Your task to perform on an android device: turn off notifications in google photos Image 0: 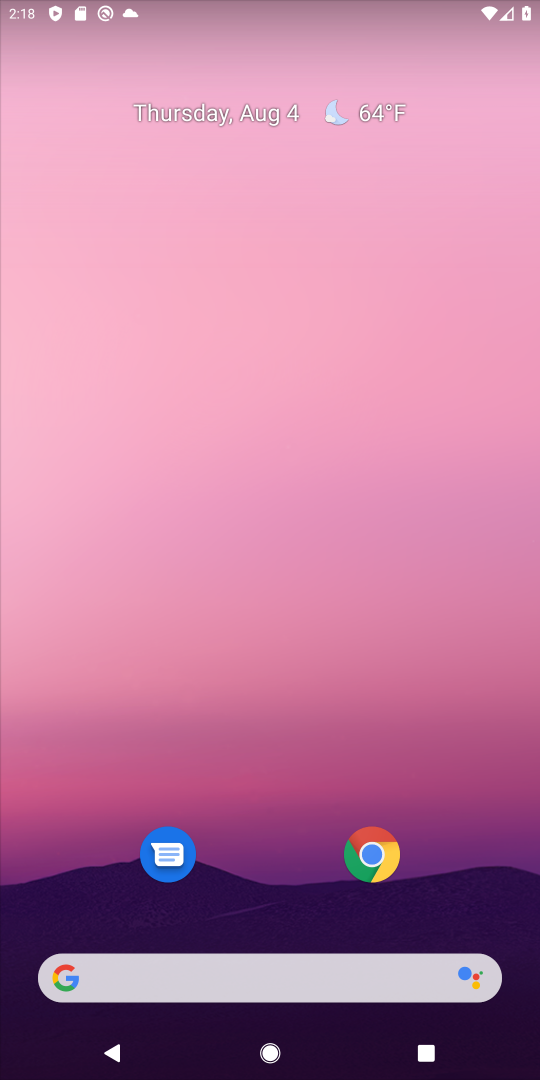
Step 0: drag from (328, 763) to (381, 321)
Your task to perform on an android device: turn off notifications in google photos Image 1: 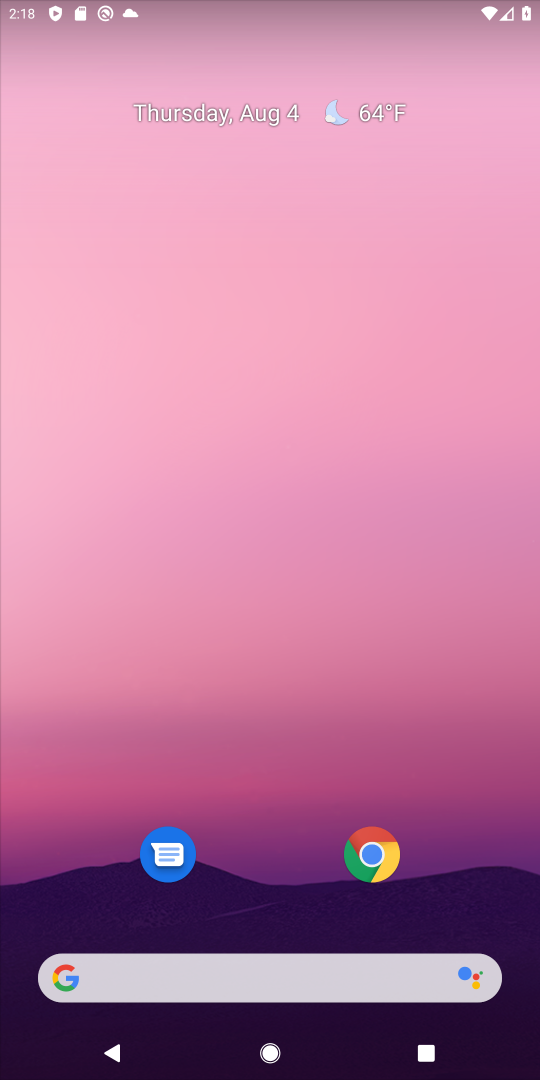
Step 1: drag from (283, 741) to (341, 176)
Your task to perform on an android device: turn off notifications in google photos Image 2: 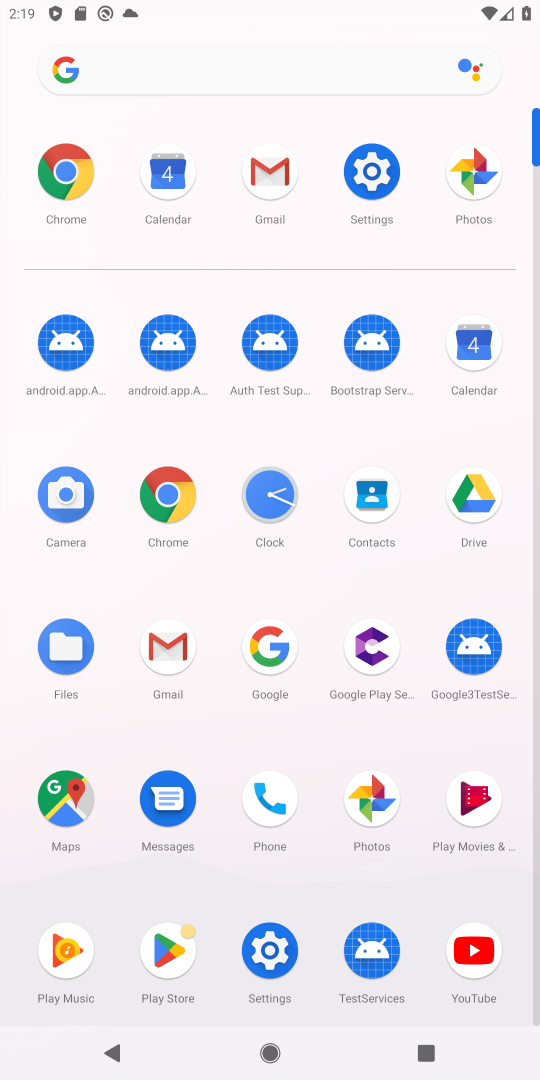
Step 2: click (372, 806)
Your task to perform on an android device: turn off notifications in google photos Image 3: 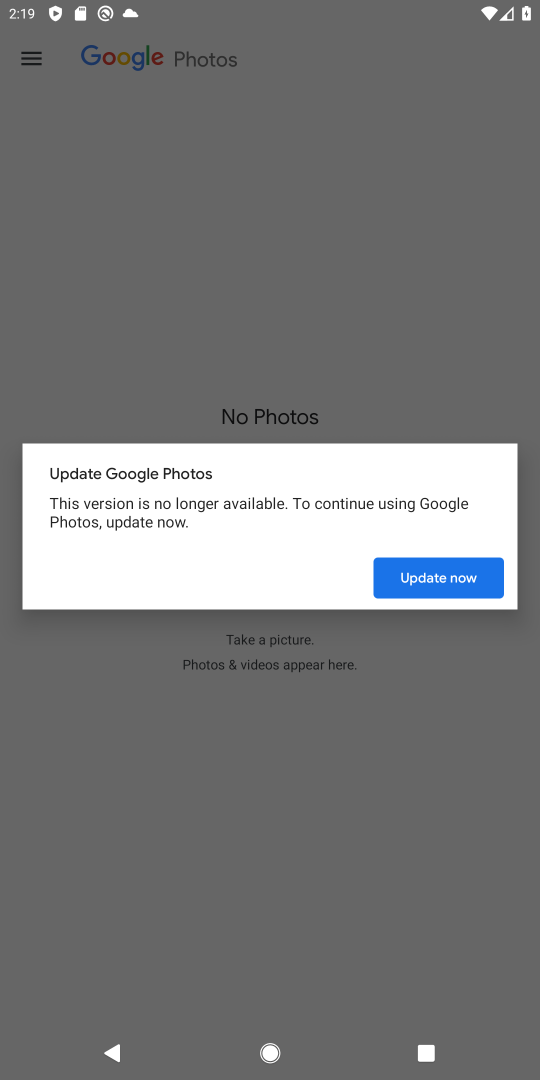
Step 3: task complete